Your task to perform on an android device: set the stopwatch Image 0: 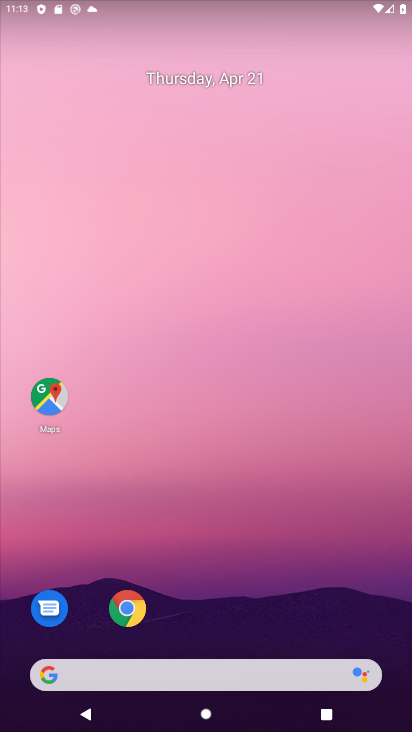
Step 0: drag from (276, 398) to (287, 270)
Your task to perform on an android device: set the stopwatch Image 1: 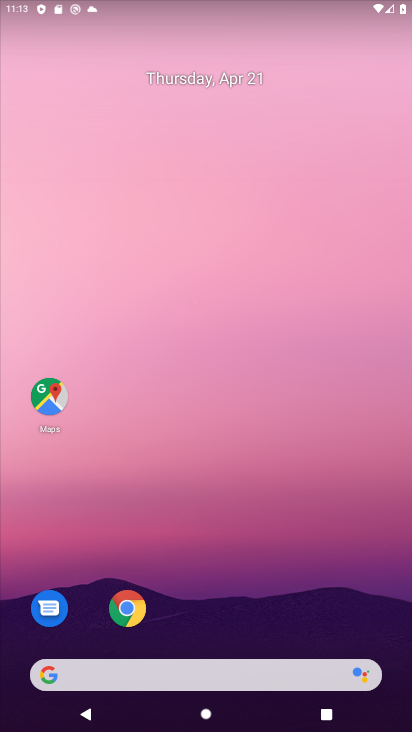
Step 1: drag from (183, 626) to (225, 74)
Your task to perform on an android device: set the stopwatch Image 2: 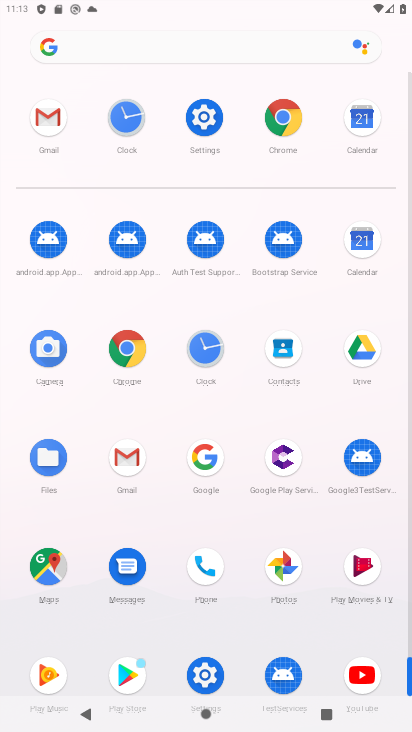
Step 2: click (210, 351)
Your task to perform on an android device: set the stopwatch Image 3: 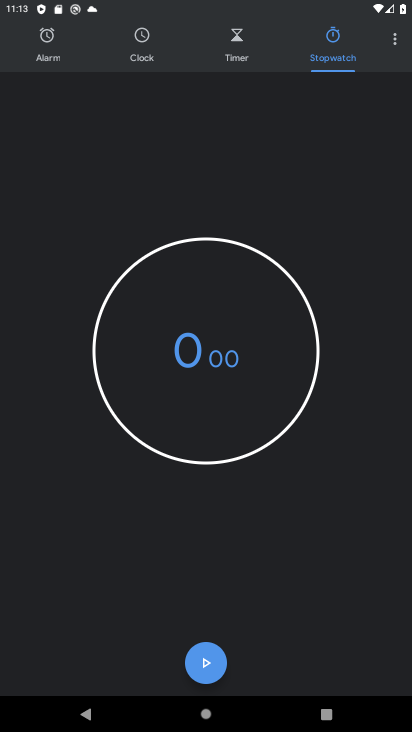
Step 3: click (209, 355)
Your task to perform on an android device: set the stopwatch Image 4: 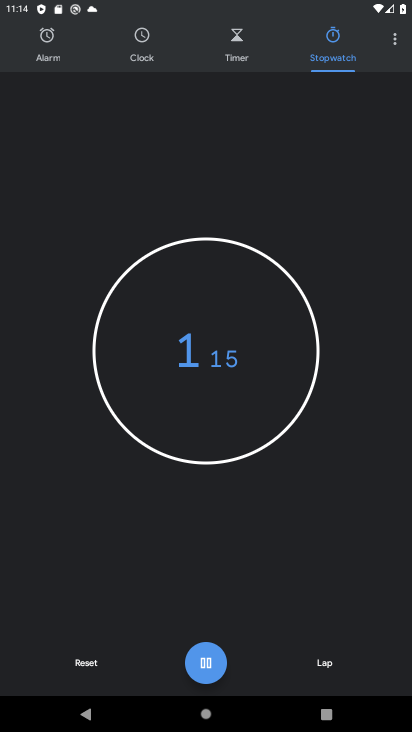
Step 4: task complete